Your task to perform on an android device: See recent photos Image 0: 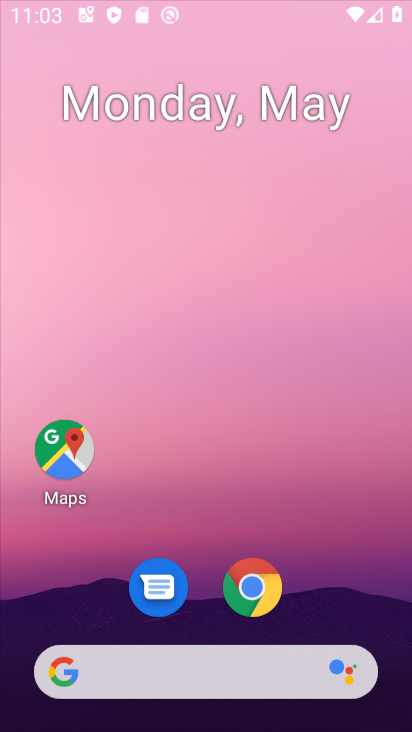
Step 0: drag from (308, 602) to (159, 49)
Your task to perform on an android device: See recent photos Image 1: 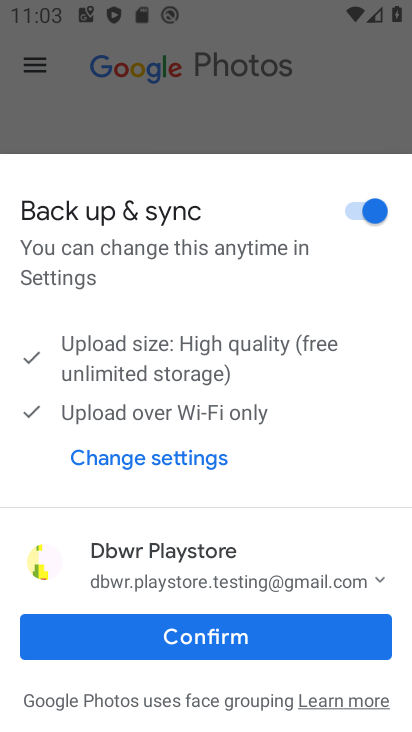
Step 1: press back button
Your task to perform on an android device: See recent photos Image 2: 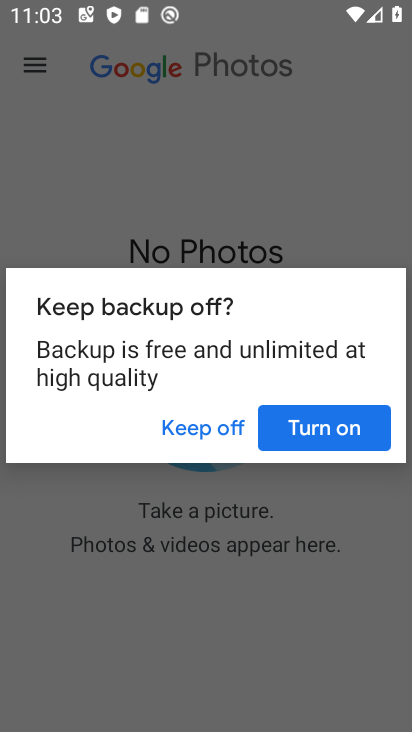
Step 2: click (199, 411)
Your task to perform on an android device: See recent photos Image 3: 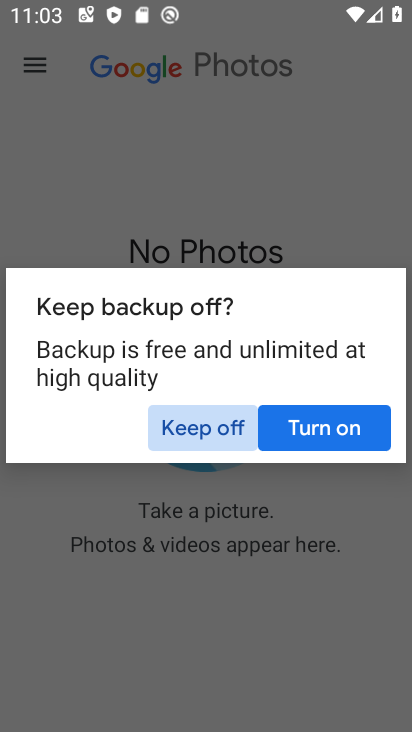
Step 3: click (200, 417)
Your task to perform on an android device: See recent photos Image 4: 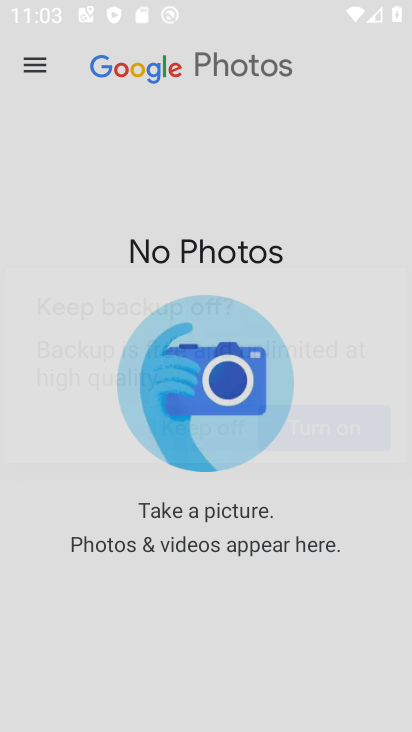
Step 4: click (200, 417)
Your task to perform on an android device: See recent photos Image 5: 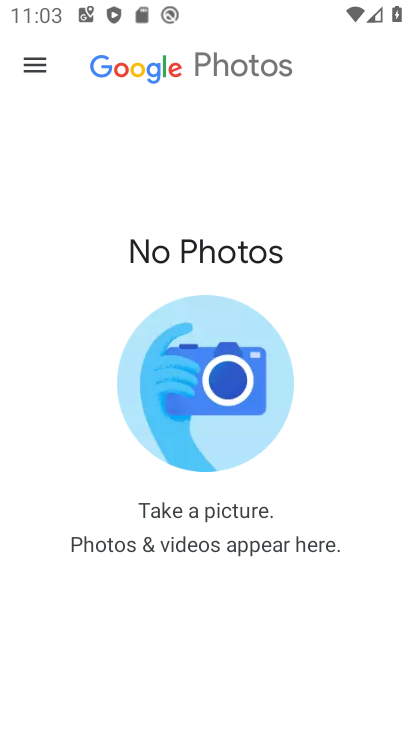
Step 5: click (204, 416)
Your task to perform on an android device: See recent photos Image 6: 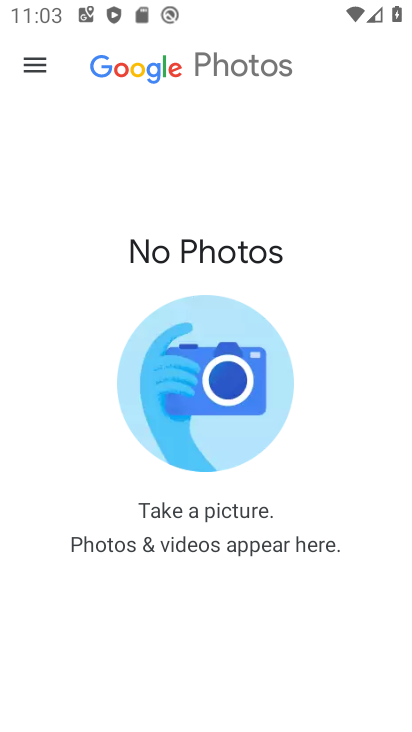
Step 6: press home button
Your task to perform on an android device: See recent photos Image 7: 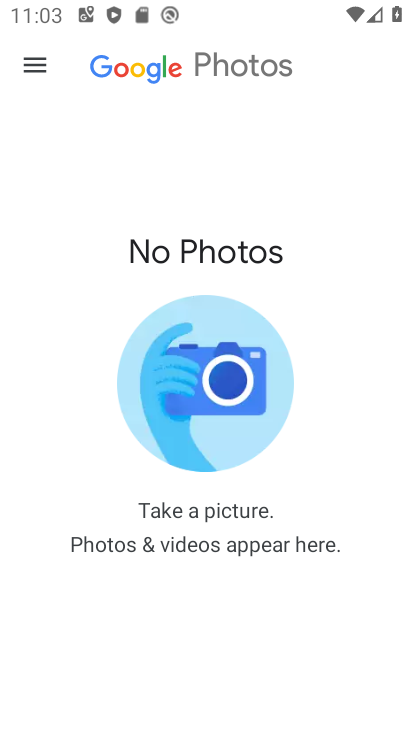
Step 7: press home button
Your task to perform on an android device: See recent photos Image 8: 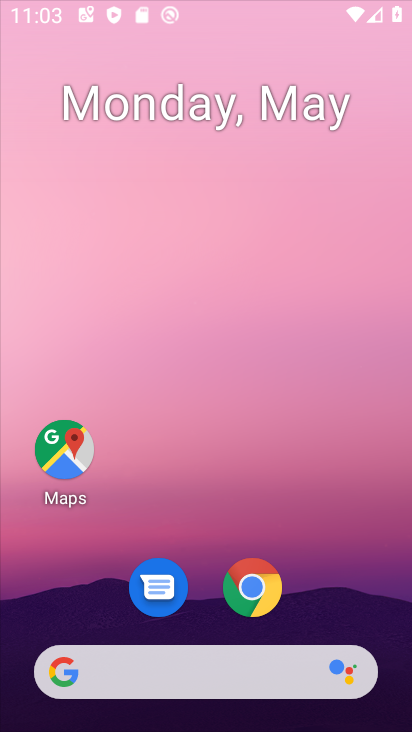
Step 8: press home button
Your task to perform on an android device: See recent photos Image 9: 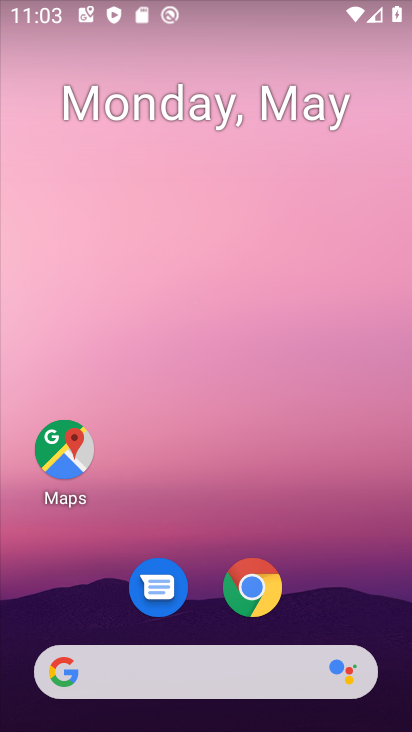
Step 9: drag from (297, 637) to (81, 37)
Your task to perform on an android device: See recent photos Image 10: 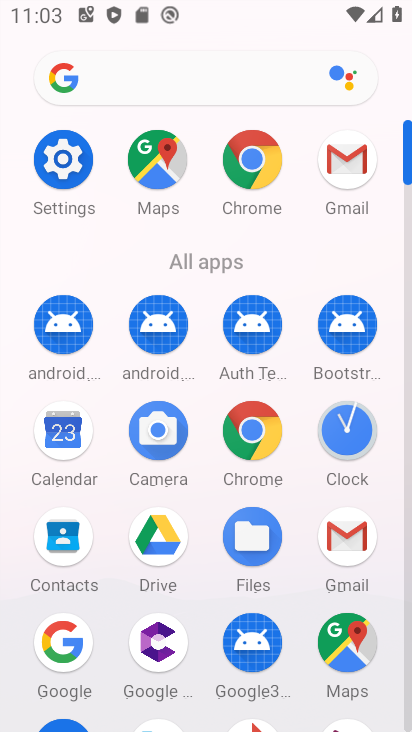
Step 10: drag from (235, 555) to (183, 213)
Your task to perform on an android device: See recent photos Image 11: 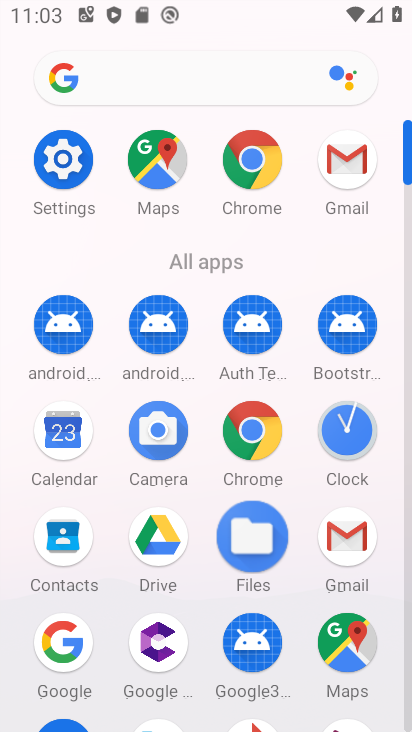
Step 11: drag from (181, 466) to (186, 236)
Your task to perform on an android device: See recent photos Image 12: 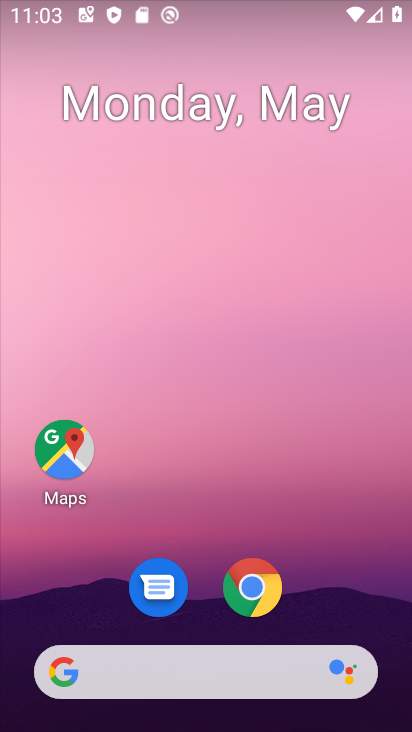
Step 12: drag from (242, 607) to (232, 241)
Your task to perform on an android device: See recent photos Image 13: 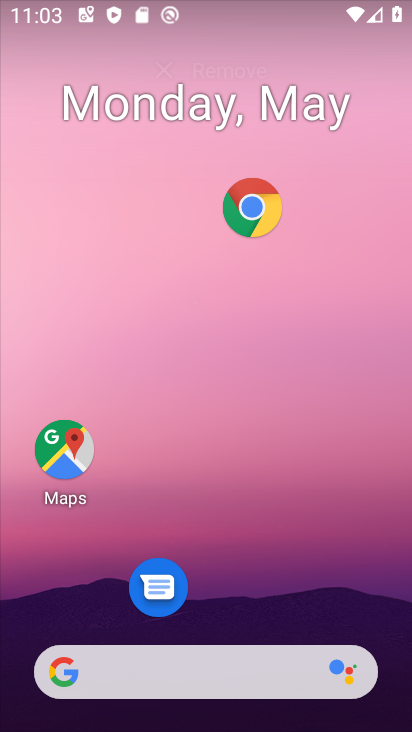
Step 13: drag from (336, 597) to (82, 9)
Your task to perform on an android device: See recent photos Image 14: 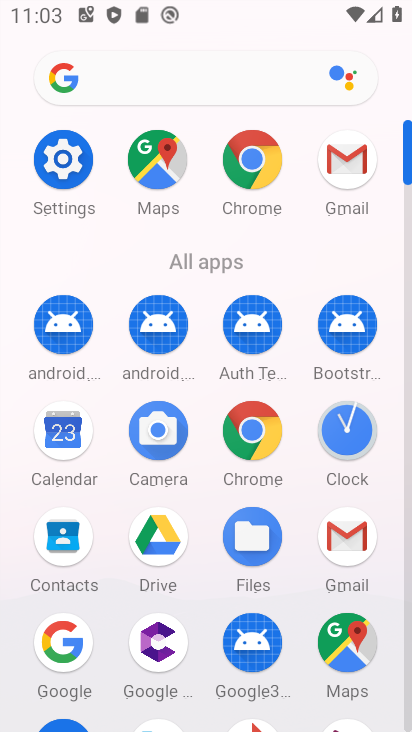
Step 14: drag from (314, 571) to (187, 179)
Your task to perform on an android device: See recent photos Image 15: 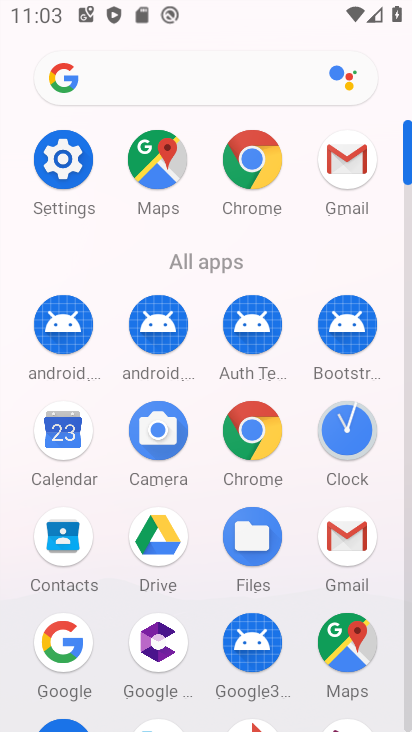
Step 15: drag from (266, 595) to (177, 121)
Your task to perform on an android device: See recent photos Image 16: 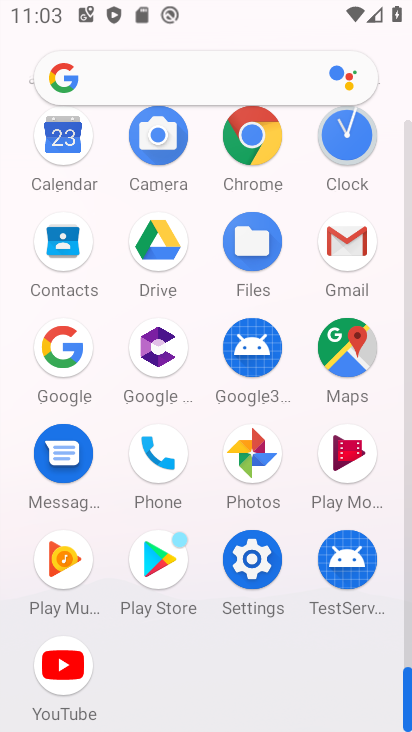
Step 16: click (246, 461)
Your task to perform on an android device: See recent photos Image 17: 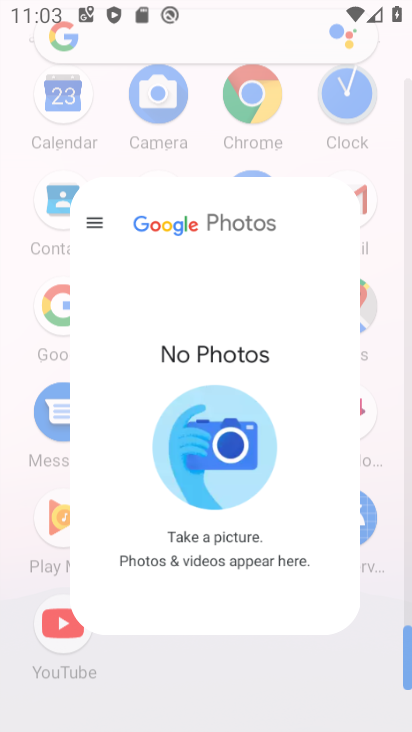
Step 17: click (246, 460)
Your task to perform on an android device: See recent photos Image 18: 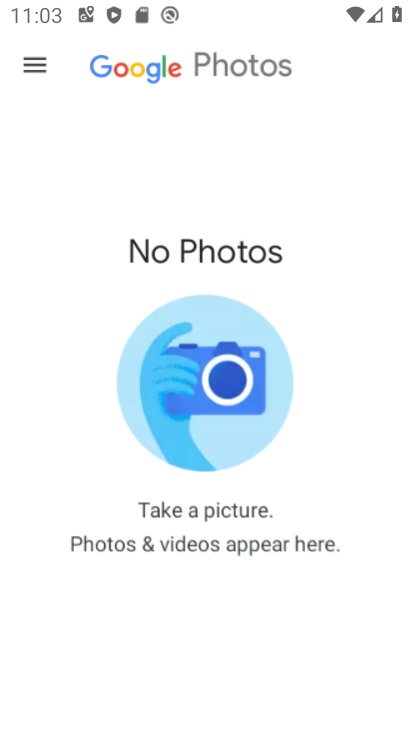
Step 18: click (246, 460)
Your task to perform on an android device: See recent photos Image 19: 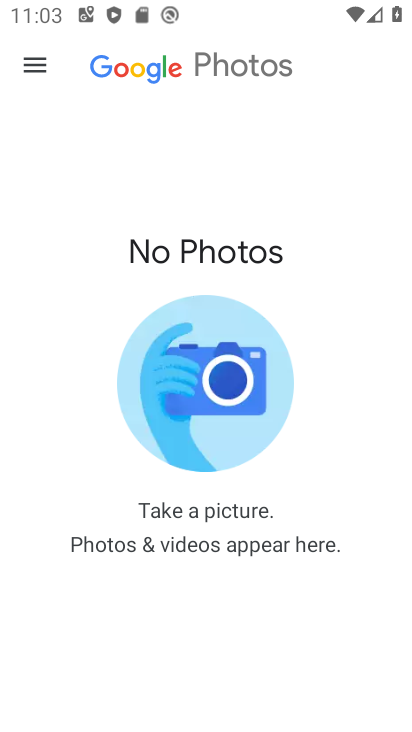
Step 19: click (246, 460)
Your task to perform on an android device: See recent photos Image 20: 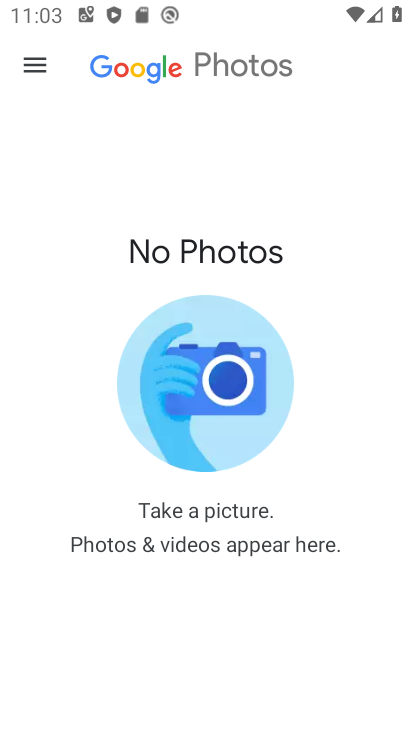
Step 20: task complete